Your task to perform on an android device: Open ESPN.com Image 0: 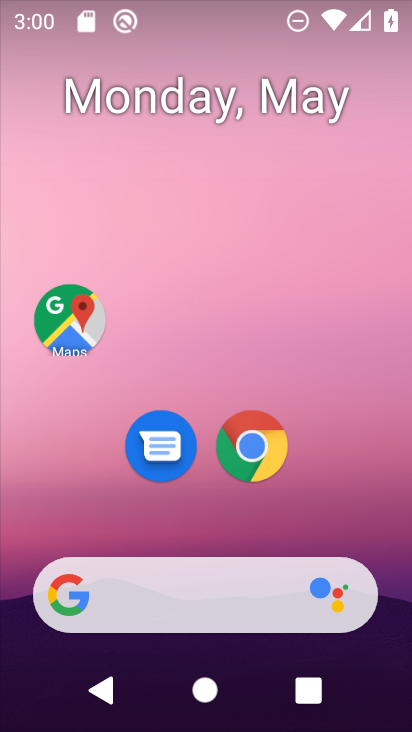
Step 0: click (175, 603)
Your task to perform on an android device: Open ESPN.com Image 1: 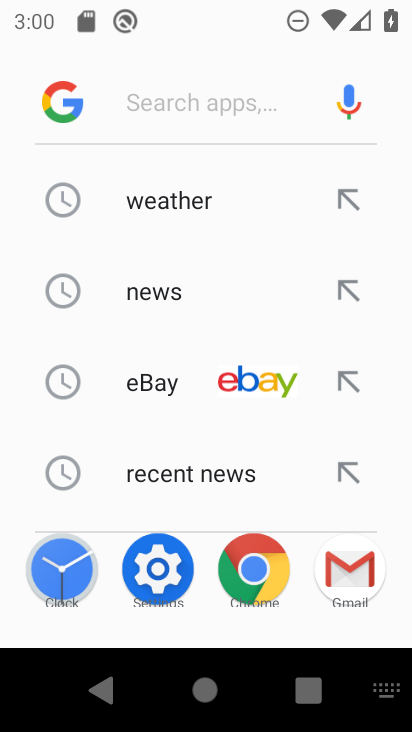
Step 1: type "espn.com"
Your task to perform on an android device: Open ESPN.com Image 2: 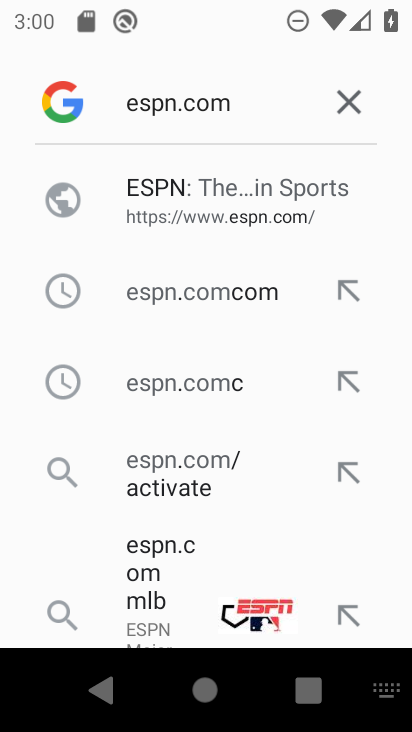
Step 2: click (164, 184)
Your task to perform on an android device: Open ESPN.com Image 3: 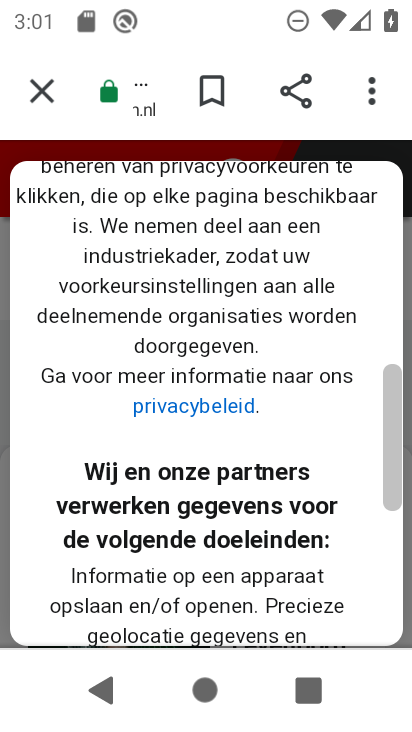
Step 3: task complete